Your task to perform on an android device: turn off wifi Image 0: 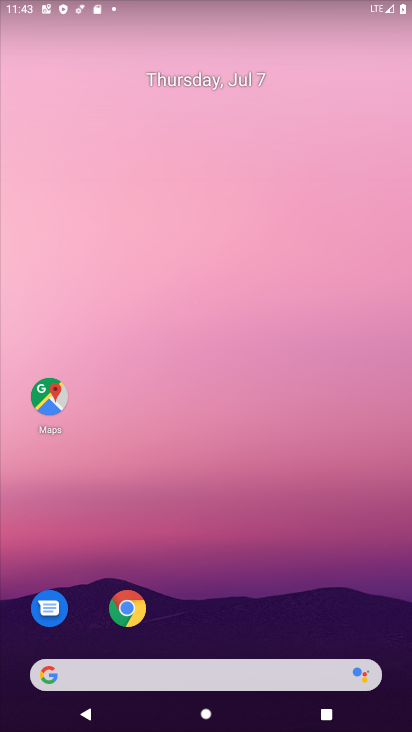
Step 0: drag from (202, 375) to (234, 0)
Your task to perform on an android device: turn off wifi Image 1: 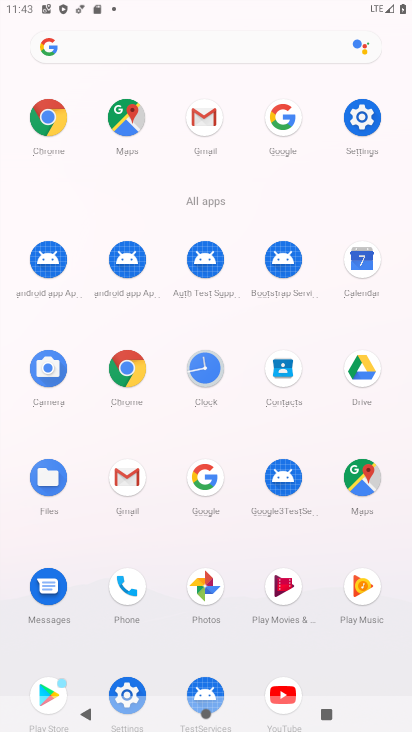
Step 1: click (128, 676)
Your task to perform on an android device: turn off wifi Image 2: 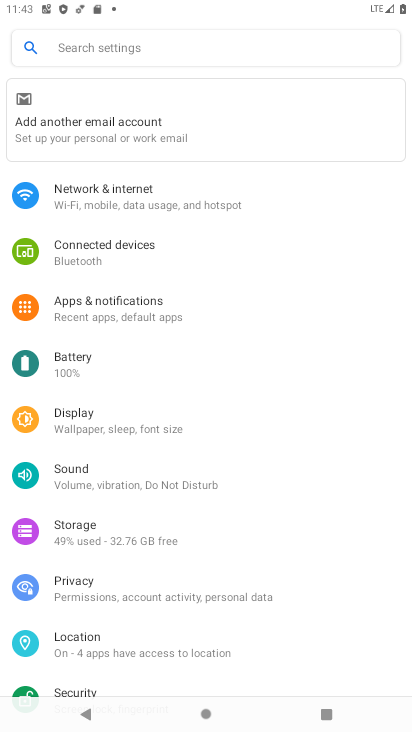
Step 2: click (128, 201)
Your task to perform on an android device: turn off wifi Image 3: 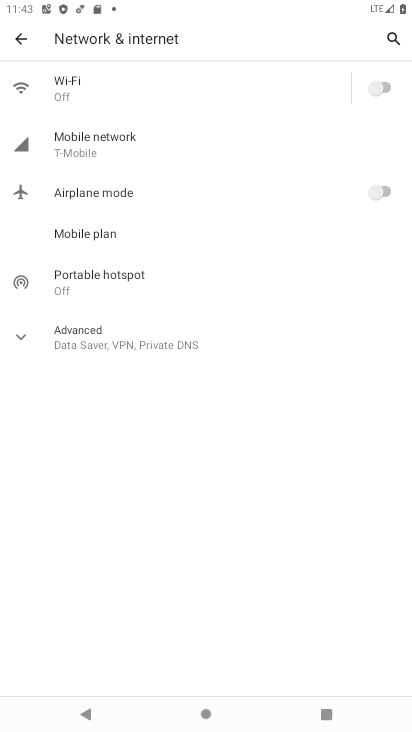
Step 3: task complete